Your task to perform on an android device: Go to location settings Image 0: 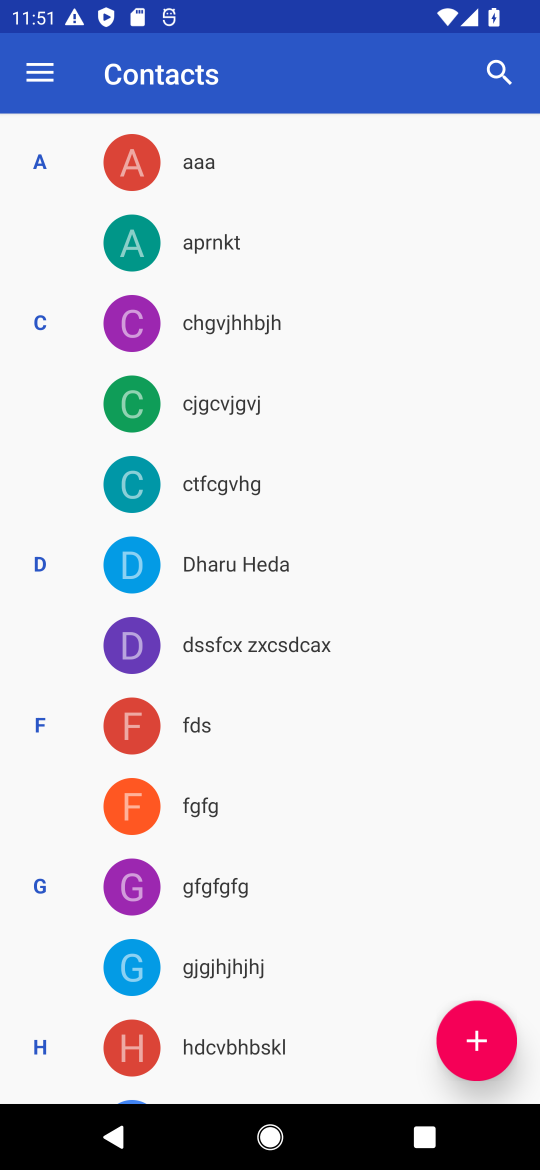
Step 0: press back button
Your task to perform on an android device: Go to location settings Image 1: 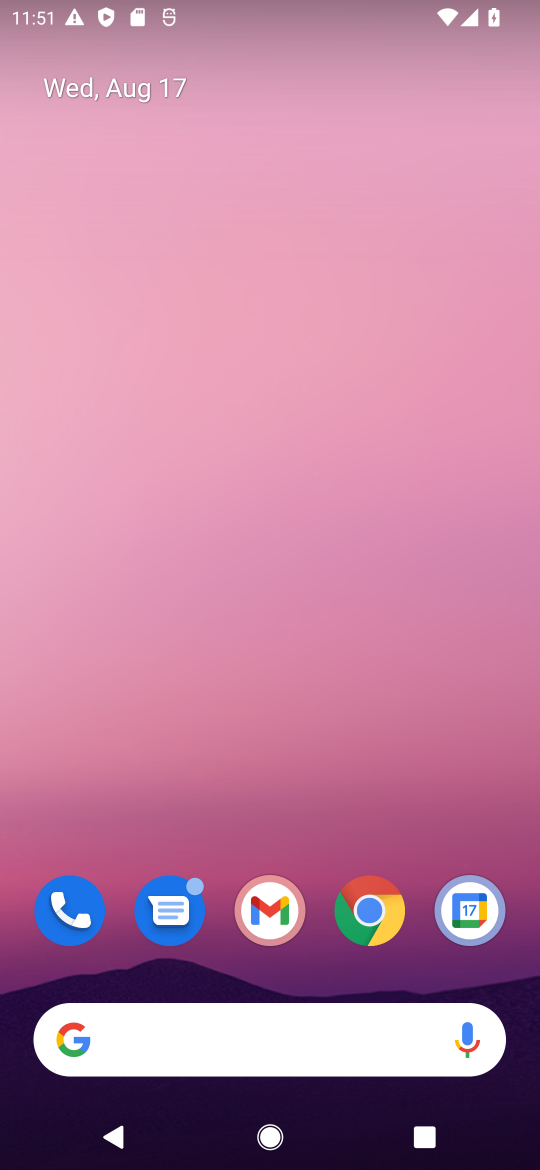
Step 1: drag from (249, 1002) to (378, 5)
Your task to perform on an android device: Go to location settings Image 2: 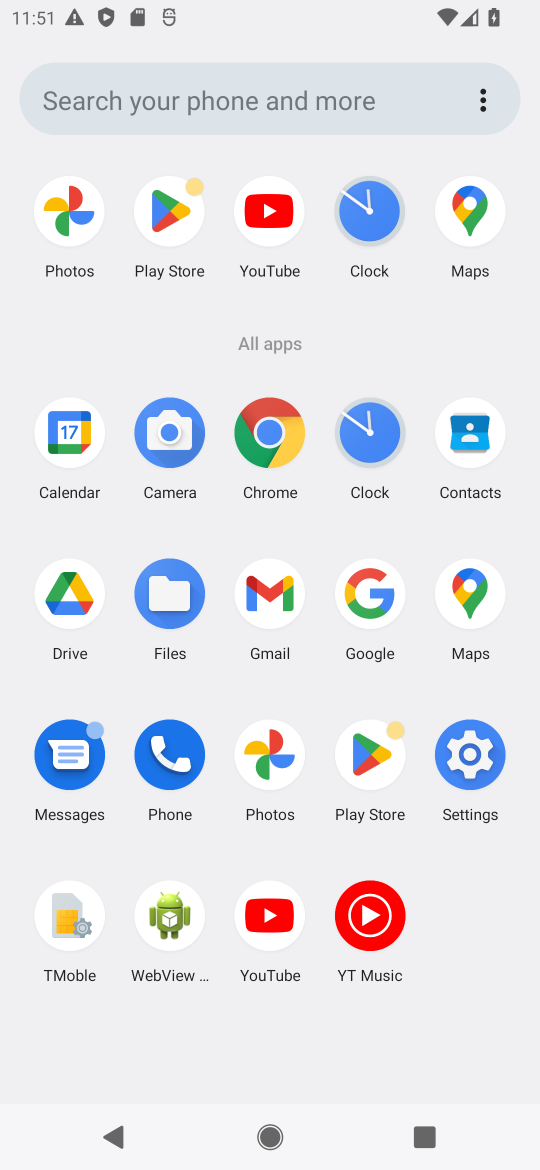
Step 2: click (472, 767)
Your task to perform on an android device: Go to location settings Image 3: 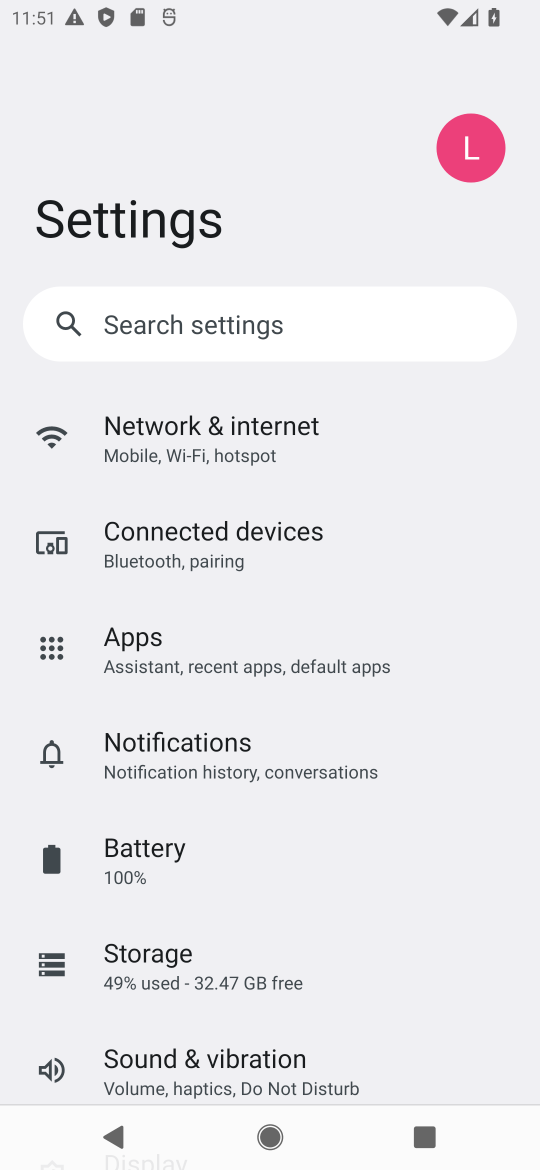
Step 3: drag from (214, 1004) to (350, 154)
Your task to perform on an android device: Go to location settings Image 4: 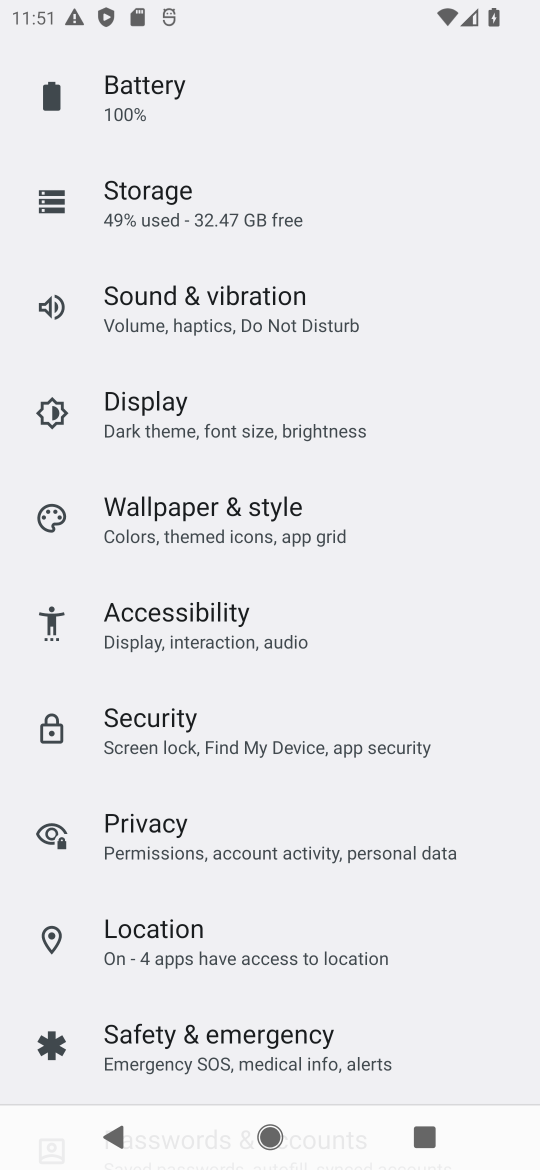
Step 4: click (183, 939)
Your task to perform on an android device: Go to location settings Image 5: 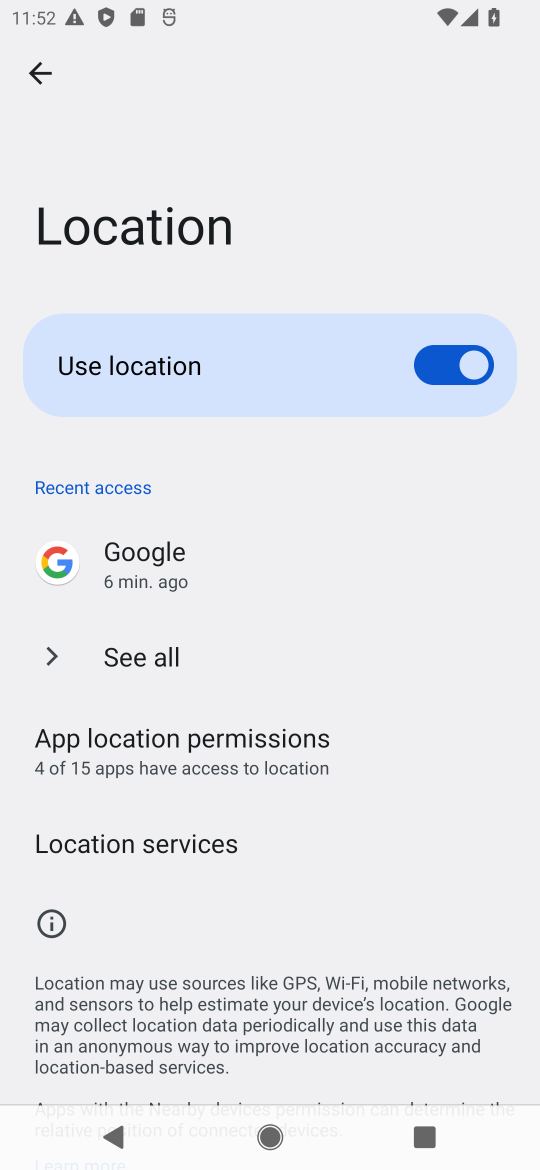
Step 5: task complete